Your task to perform on an android device: turn off data saver in the chrome app Image 0: 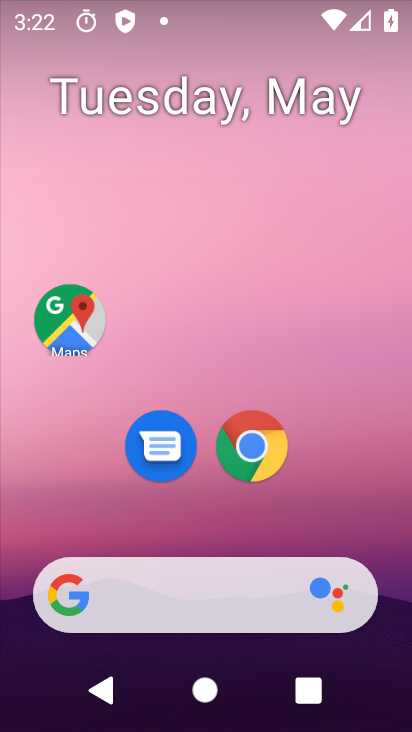
Step 0: click (251, 450)
Your task to perform on an android device: turn off data saver in the chrome app Image 1: 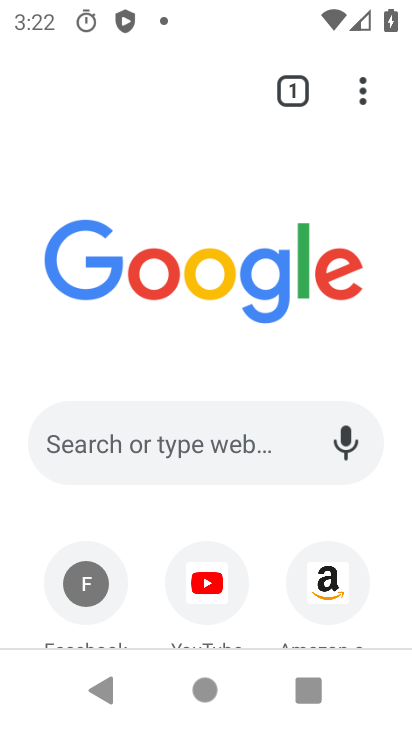
Step 1: click (359, 96)
Your task to perform on an android device: turn off data saver in the chrome app Image 2: 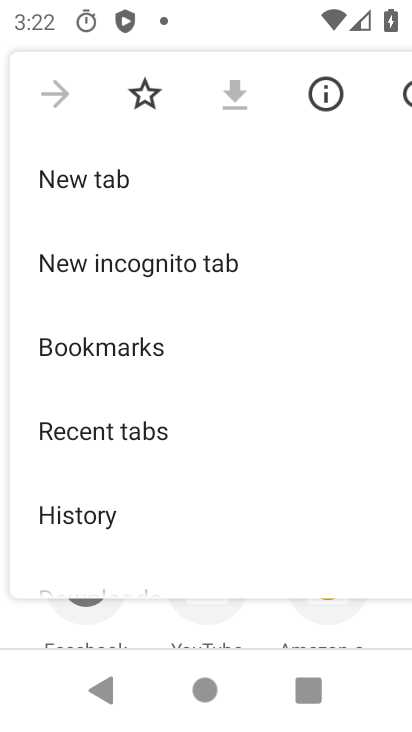
Step 2: drag from (177, 524) to (227, 99)
Your task to perform on an android device: turn off data saver in the chrome app Image 3: 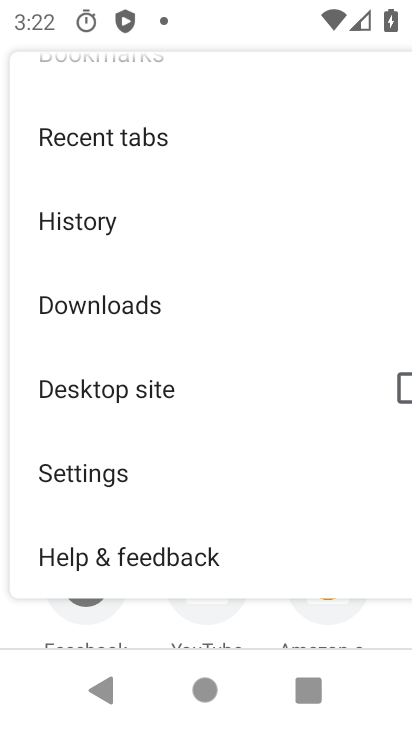
Step 3: click (105, 464)
Your task to perform on an android device: turn off data saver in the chrome app Image 4: 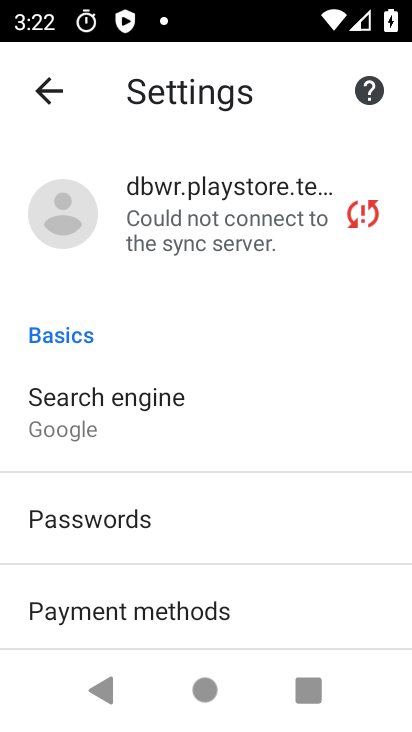
Step 4: drag from (207, 617) to (205, 182)
Your task to perform on an android device: turn off data saver in the chrome app Image 5: 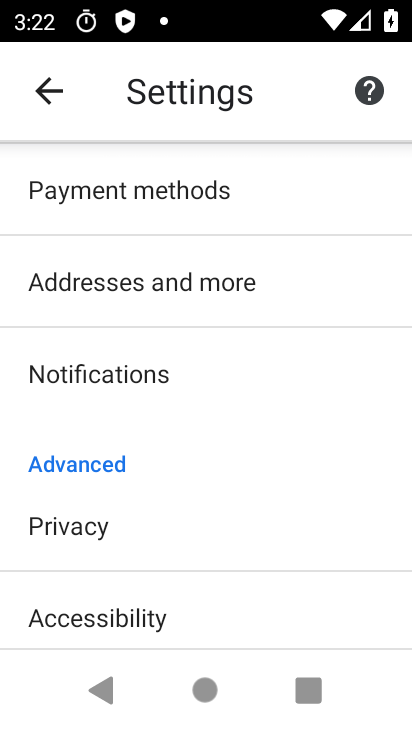
Step 5: drag from (189, 577) to (213, 269)
Your task to perform on an android device: turn off data saver in the chrome app Image 6: 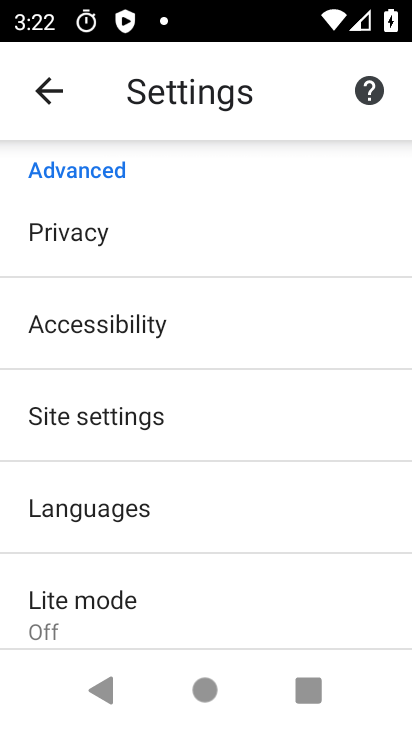
Step 6: click (109, 592)
Your task to perform on an android device: turn off data saver in the chrome app Image 7: 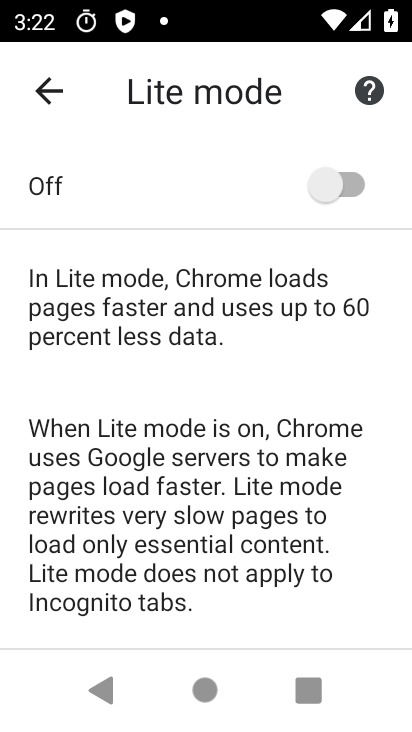
Step 7: task complete